Your task to perform on an android device: change the clock display to analog Image 0: 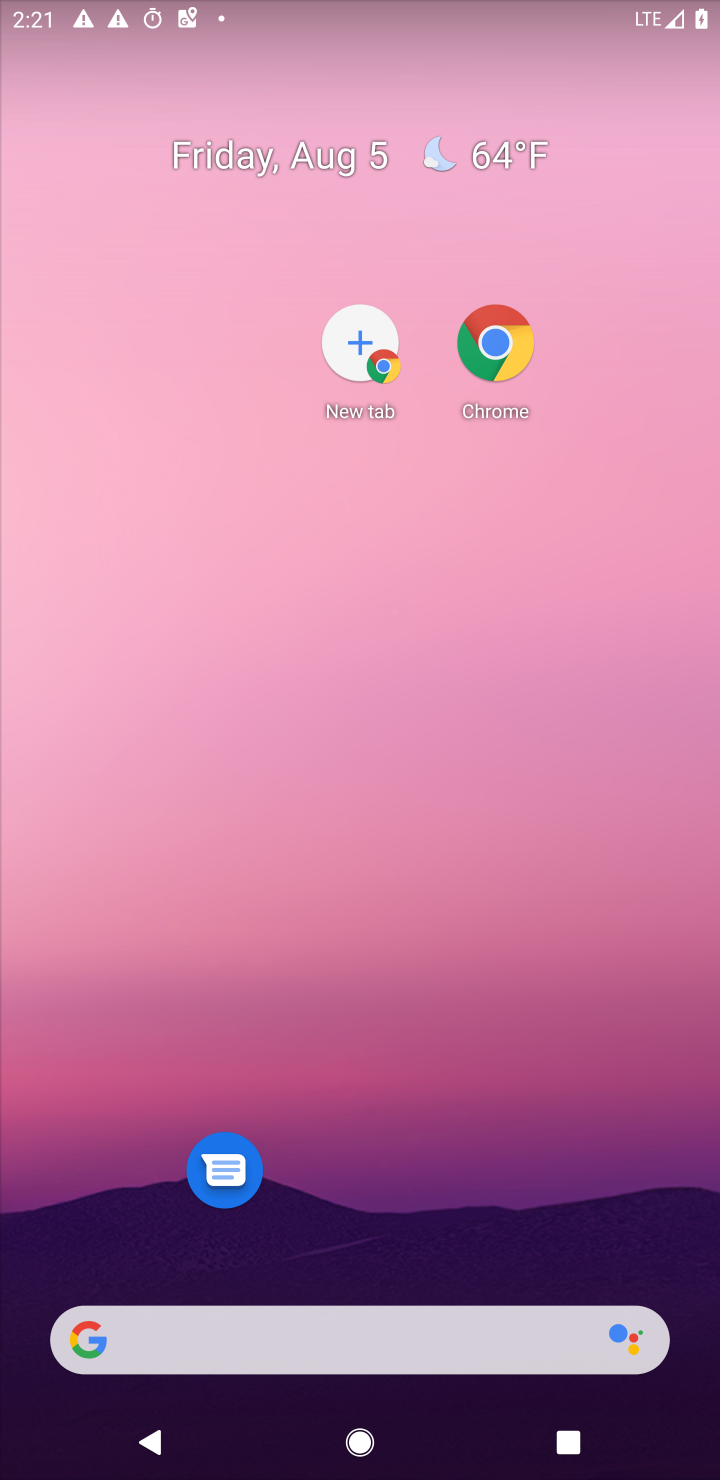
Step 0: drag from (442, 688) to (467, 96)
Your task to perform on an android device: change the clock display to analog Image 1: 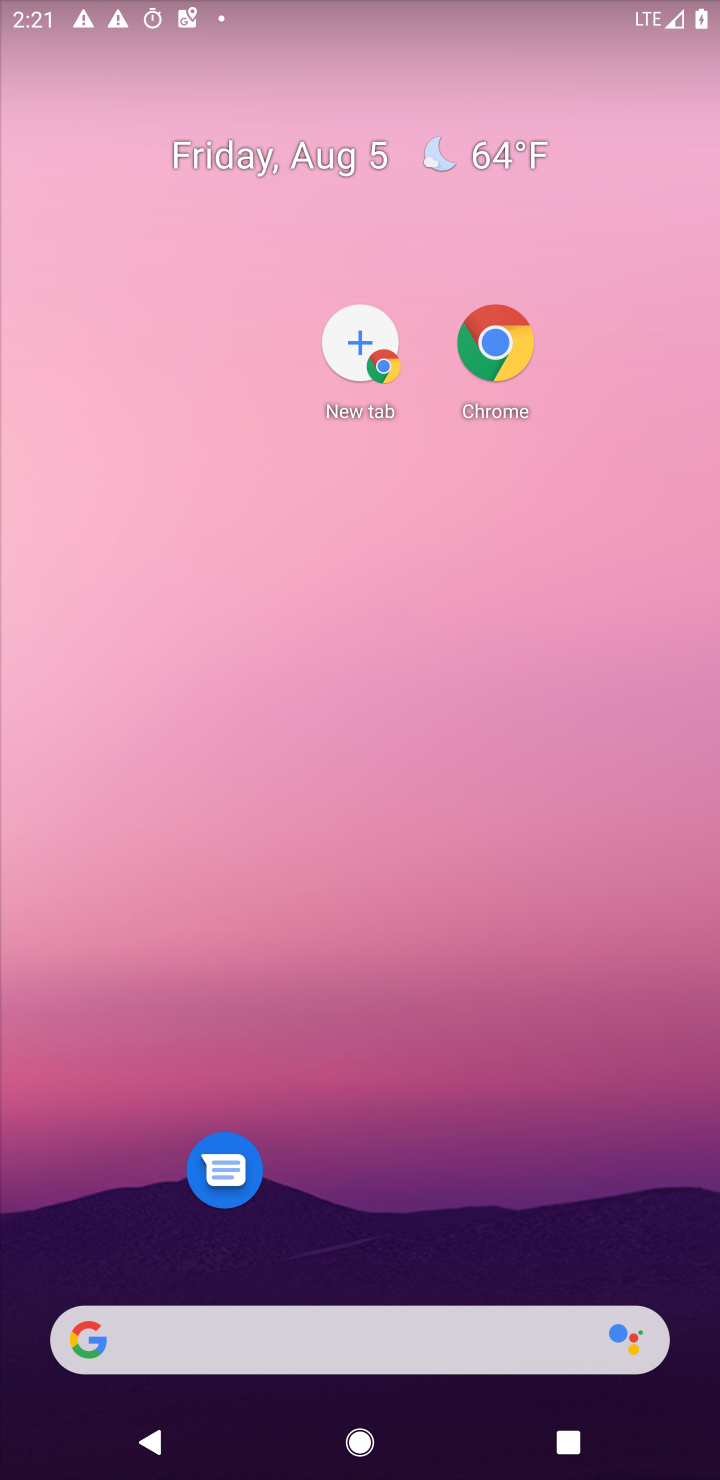
Step 1: drag from (452, 548) to (448, 0)
Your task to perform on an android device: change the clock display to analog Image 2: 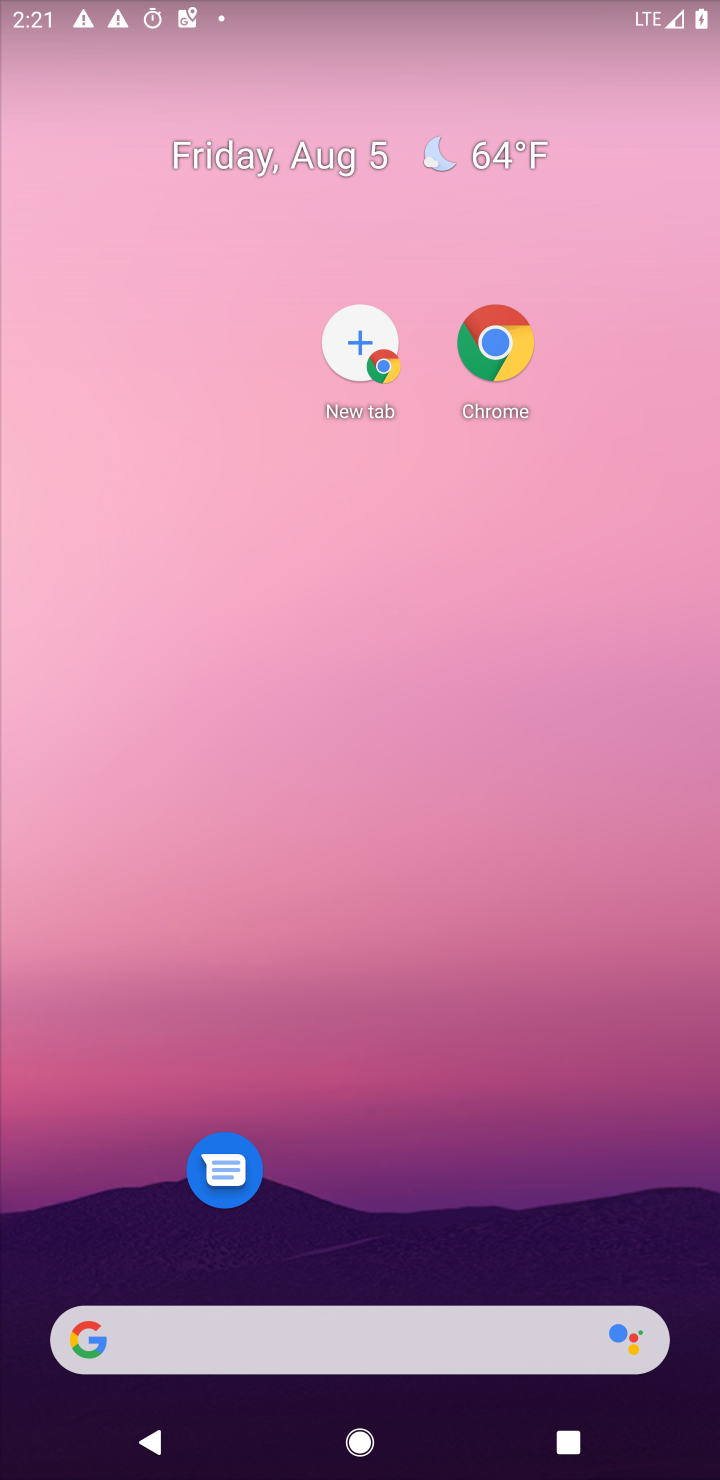
Step 2: drag from (383, 1092) to (445, 0)
Your task to perform on an android device: change the clock display to analog Image 3: 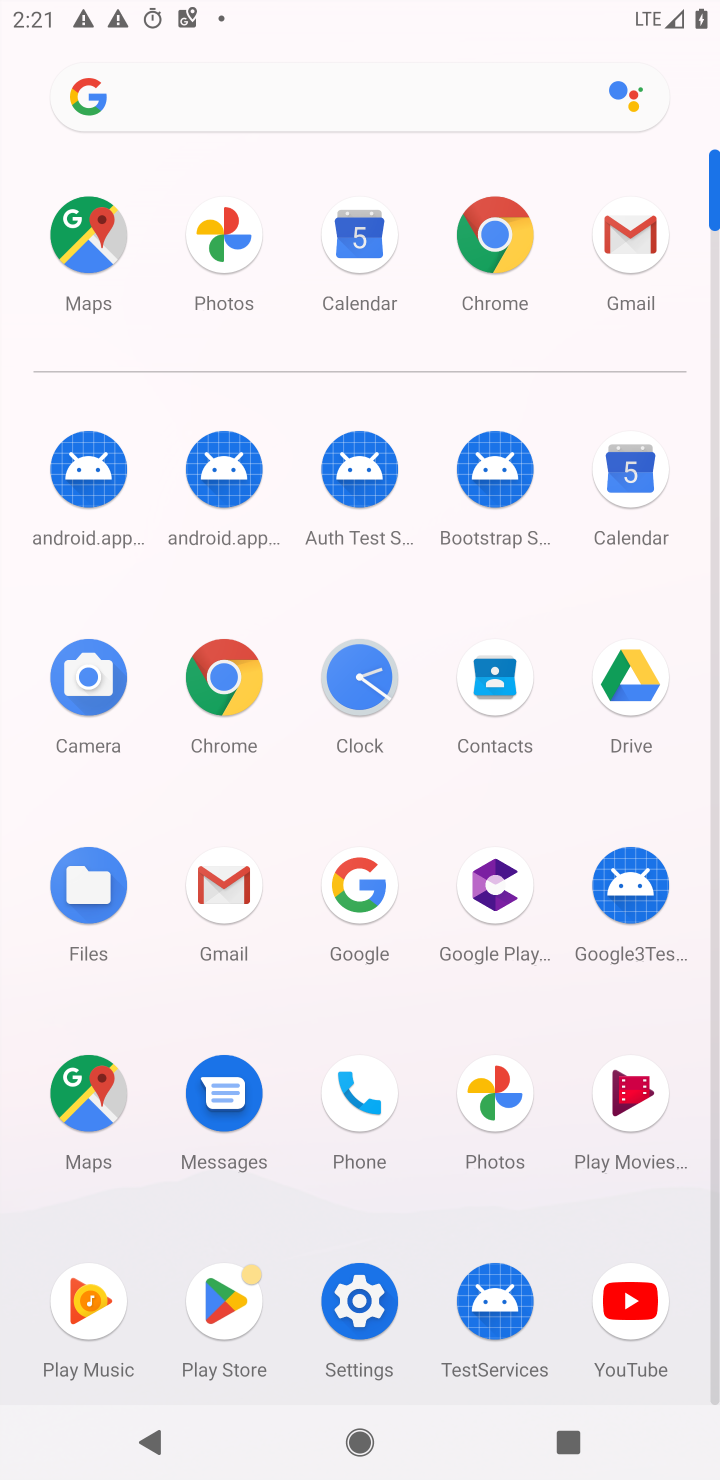
Step 3: click (382, 688)
Your task to perform on an android device: change the clock display to analog Image 4: 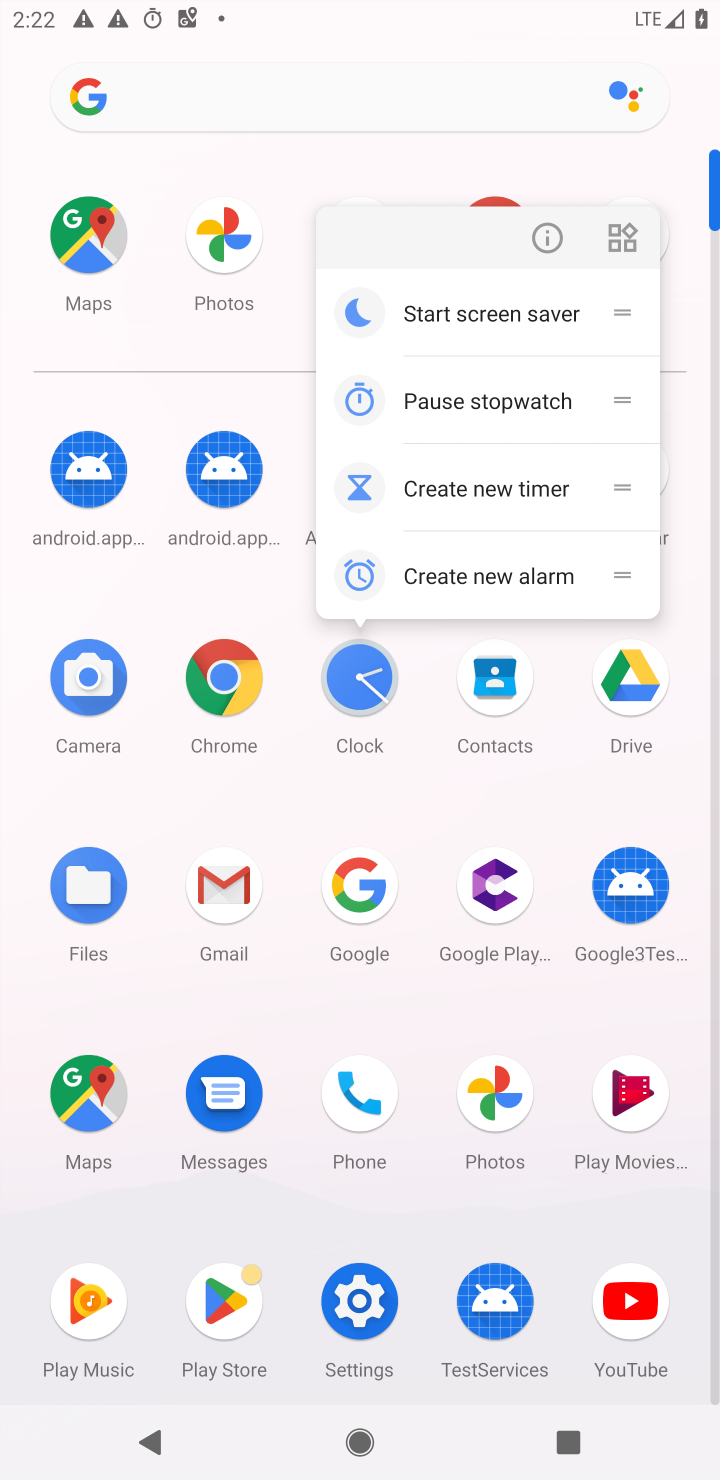
Step 4: click (376, 689)
Your task to perform on an android device: change the clock display to analog Image 5: 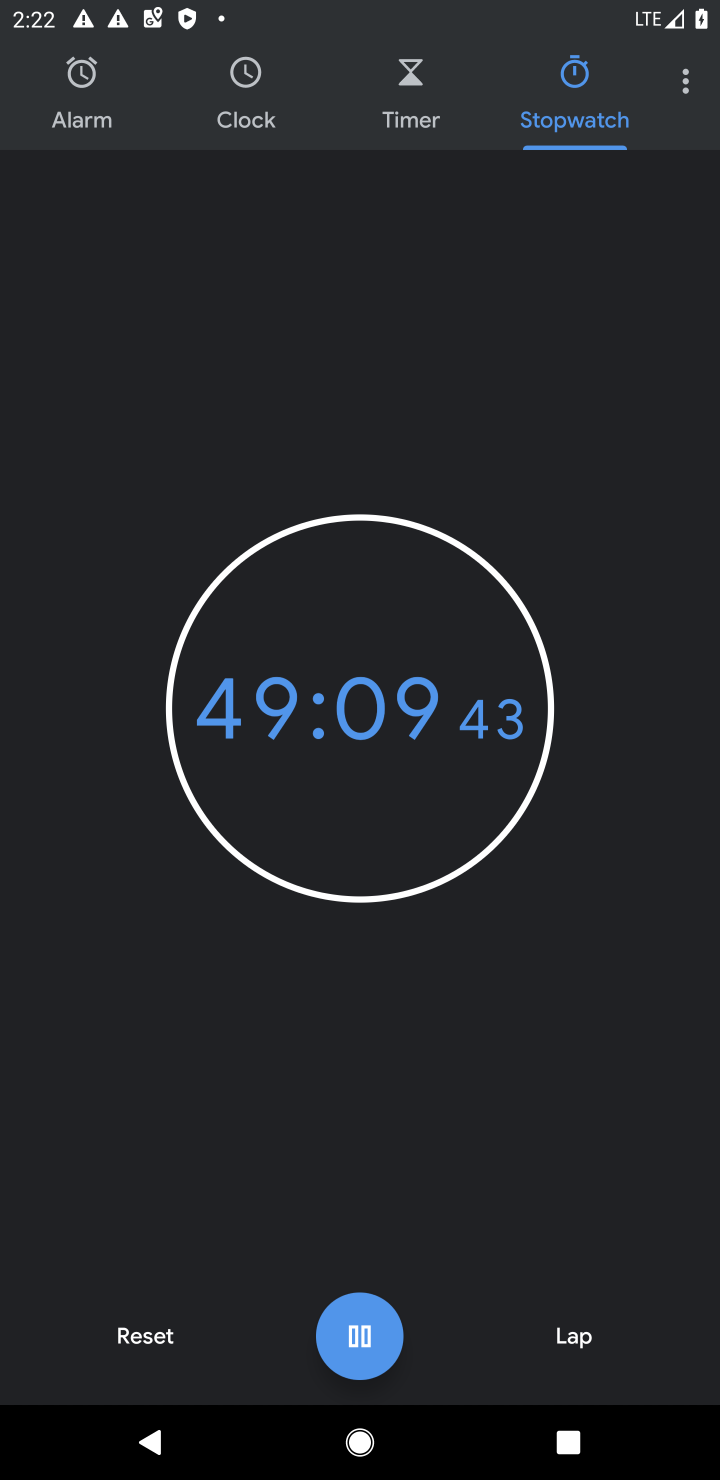
Step 5: click (681, 83)
Your task to perform on an android device: change the clock display to analog Image 6: 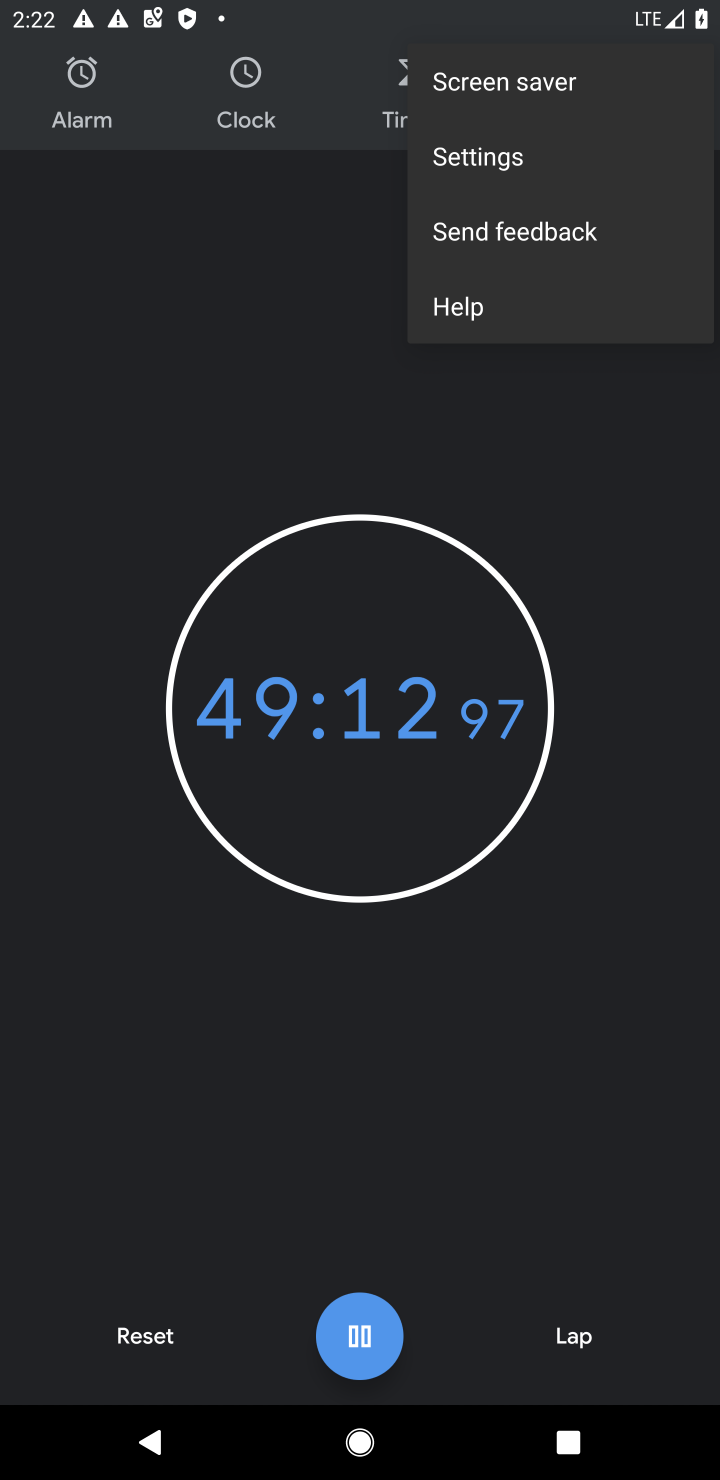
Step 6: click (514, 171)
Your task to perform on an android device: change the clock display to analog Image 7: 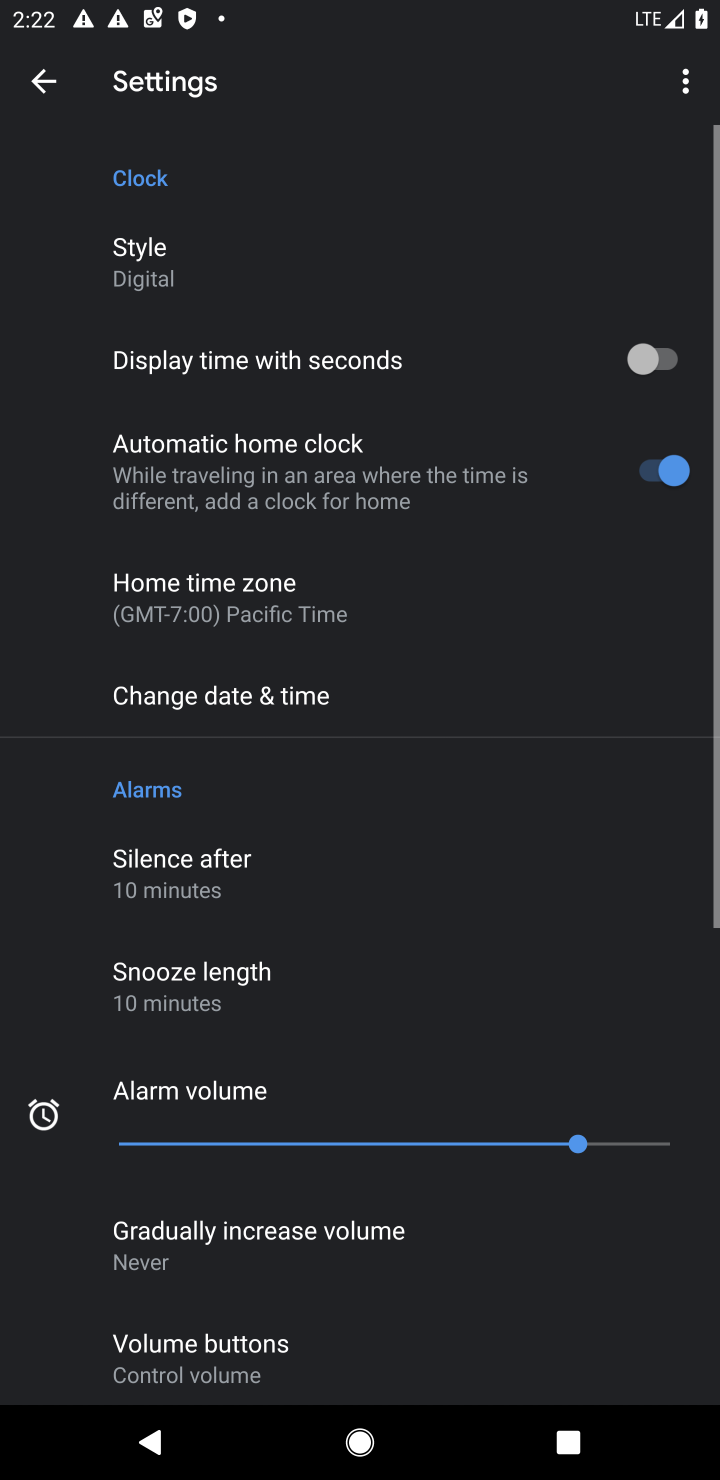
Step 7: click (335, 278)
Your task to perform on an android device: change the clock display to analog Image 8: 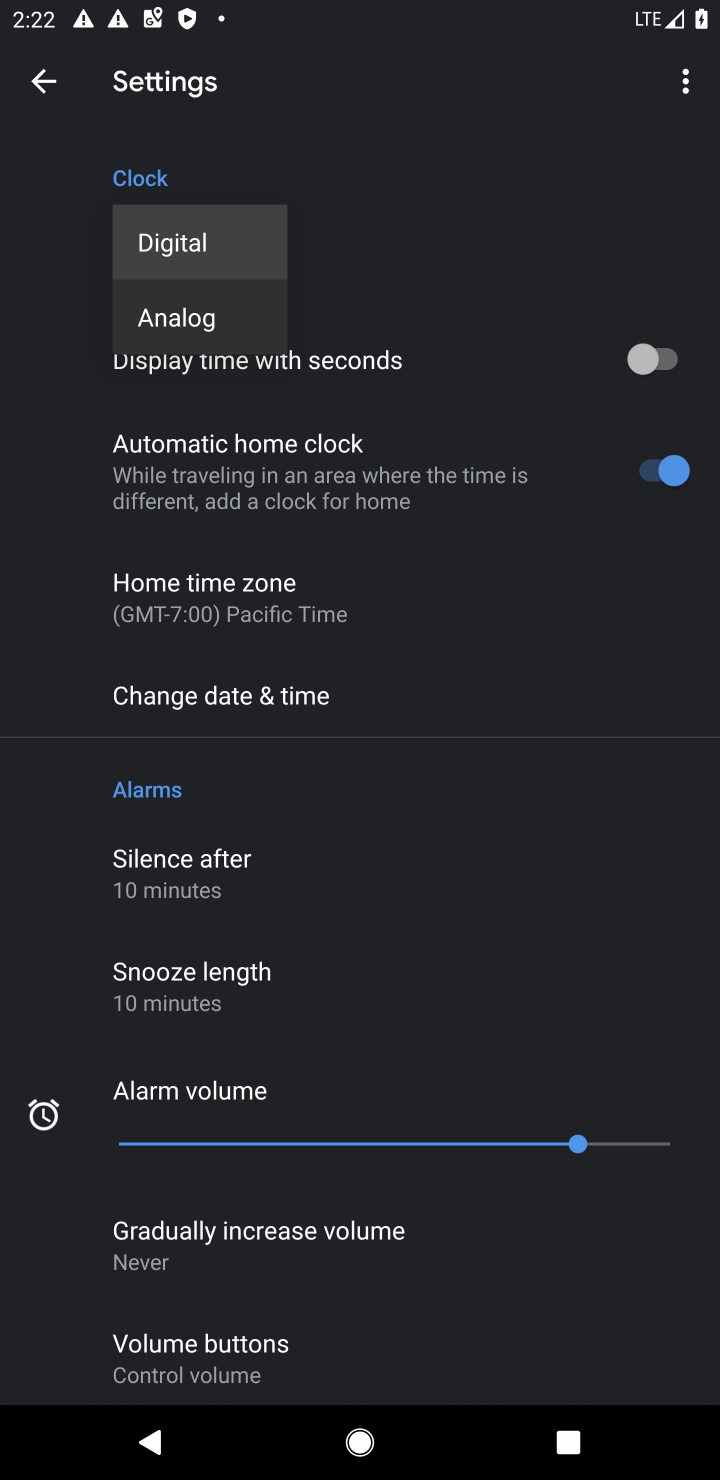
Step 8: click (179, 341)
Your task to perform on an android device: change the clock display to analog Image 9: 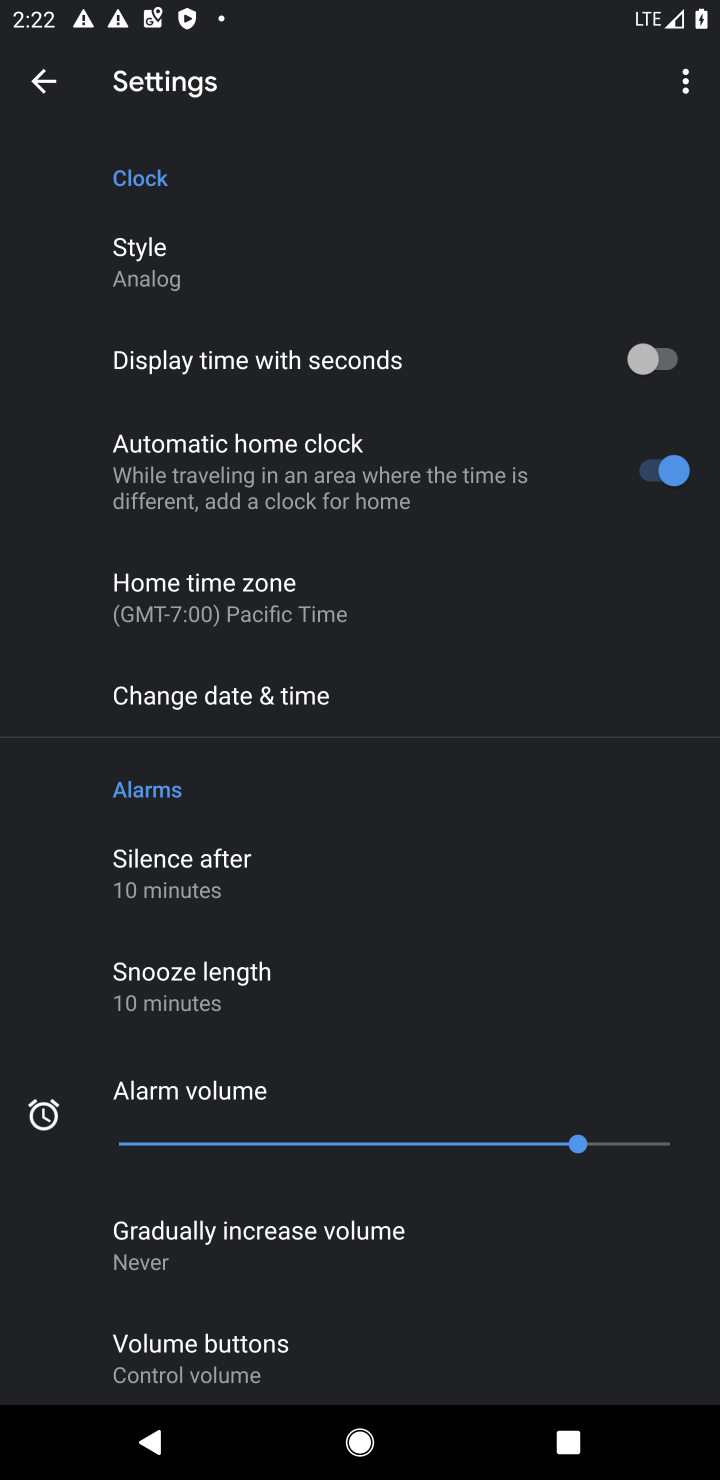
Step 9: task complete